Your task to perform on an android device: Toggle the flashlight Image 0: 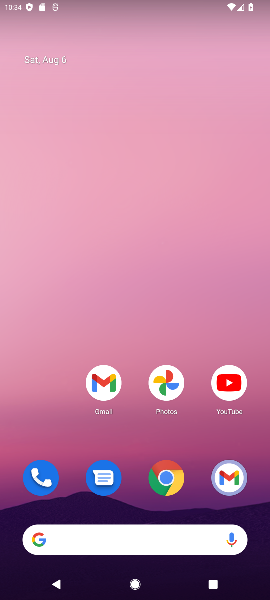
Step 0: drag from (138, 306) to (136, 25)
Your task to perform on an android device: Toggle the flashlight Image 1: 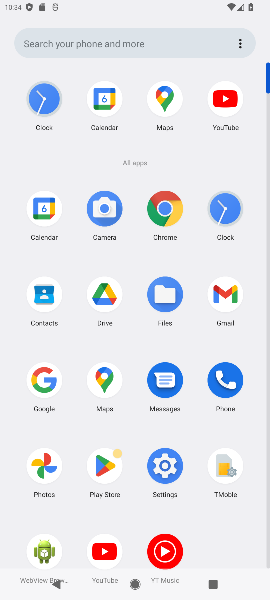
Step 1: click (164, 461)
Your task to perform on an android device: Toggle the flashlight Image 2: 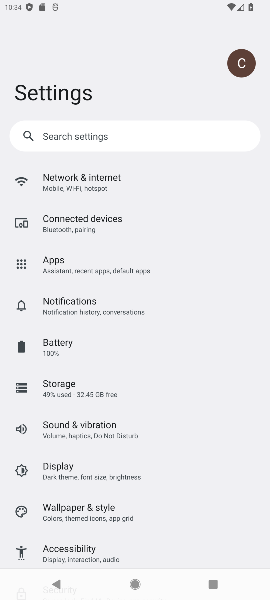
Step 2: task complete